Your task to perform on an android device: Add "razer blade" to the cart on bestbuy.com Image 0: 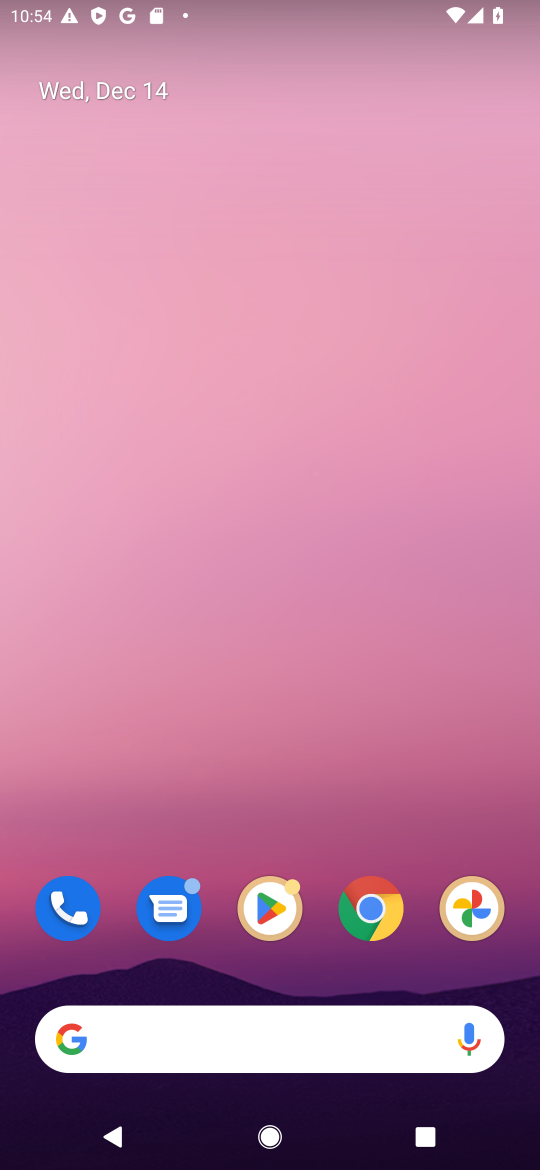
Step 0: click (368, 922)
Your task to perform on an android device: Add "razer blade" to the cart on bestbuy.com Image 1: 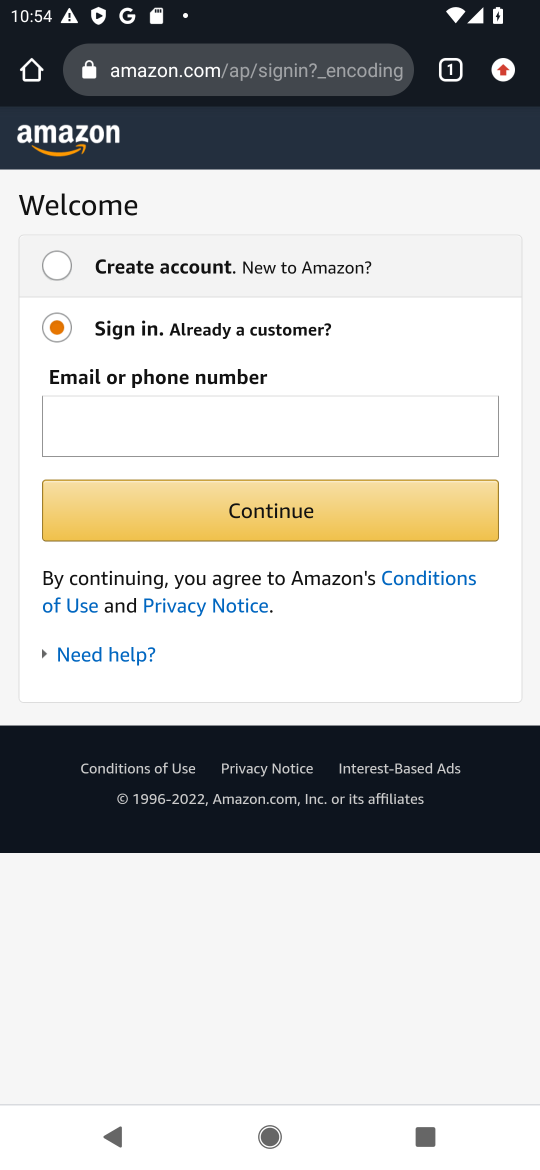
Step 1: click (239, 78)
Your task to perform on an android device: Add "razer blade" to the cart on bestbuy.com Image 2: 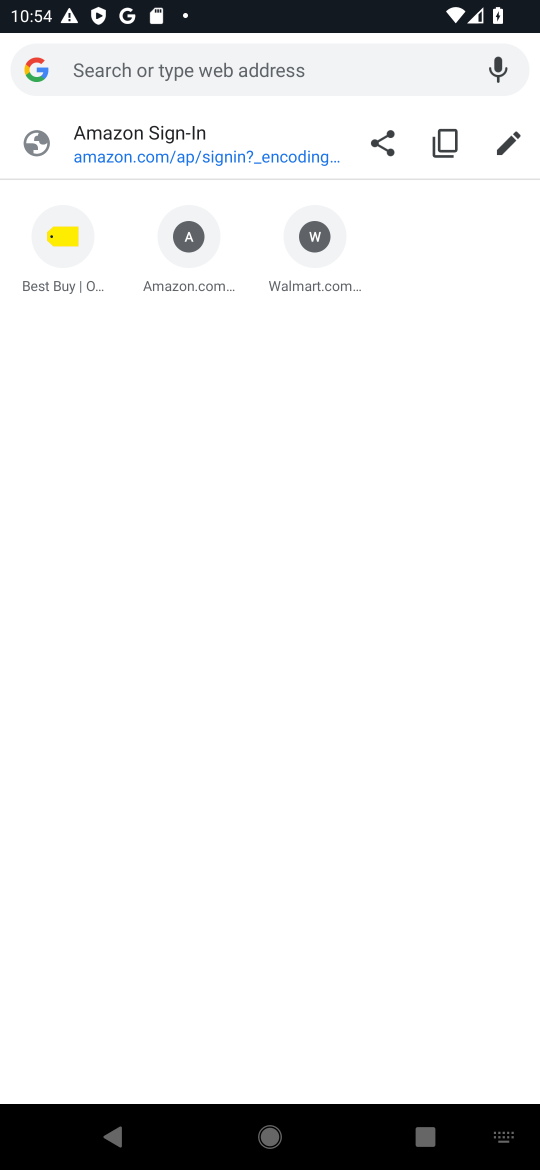
Step 2: type "bestbuy"
Your task to perform on an android device: Add "razer blade" to the cart on bestbuy.com Image 3: 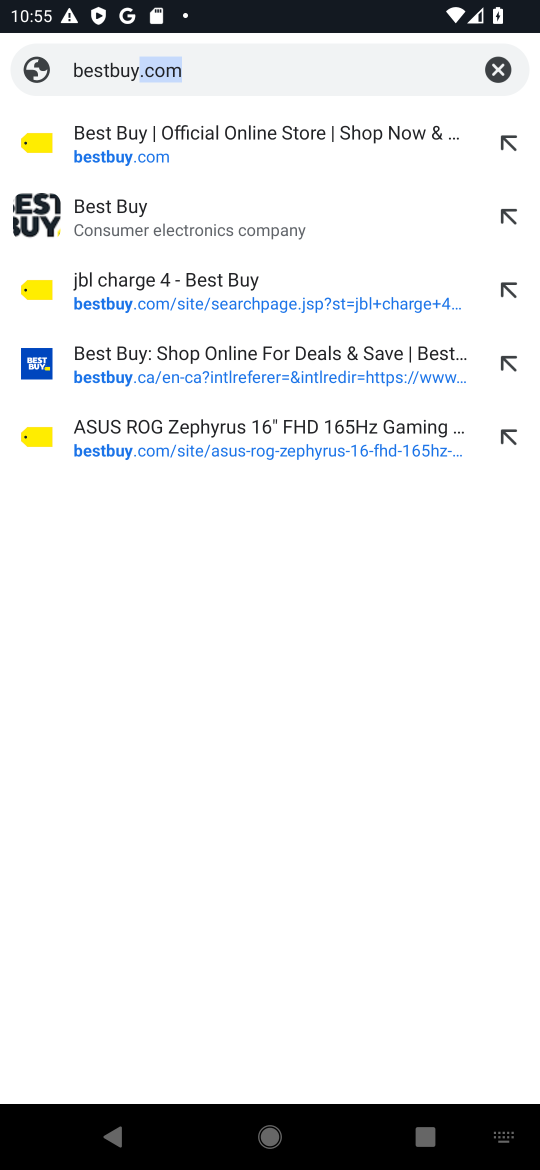
Step 3: click (274, 166)
Your task to perform on an android device: Add "razer blade" to the cart on bestbuy.com Image 4: 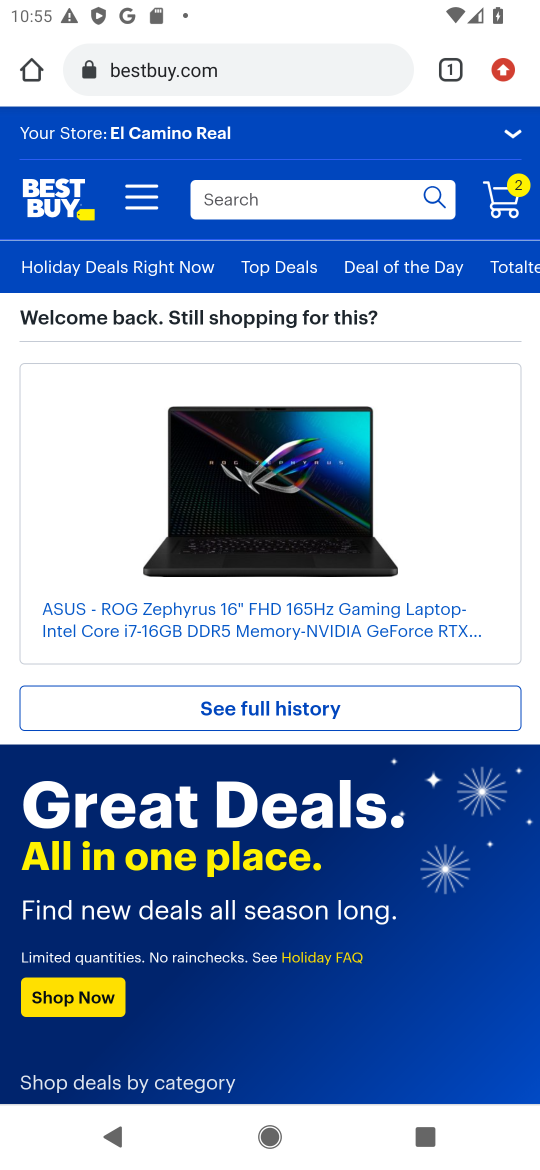
Step 4: click (256, 200)
Your task to perform on an android device: Add "razer blade" to the cart on bestbuy.com Image 5: 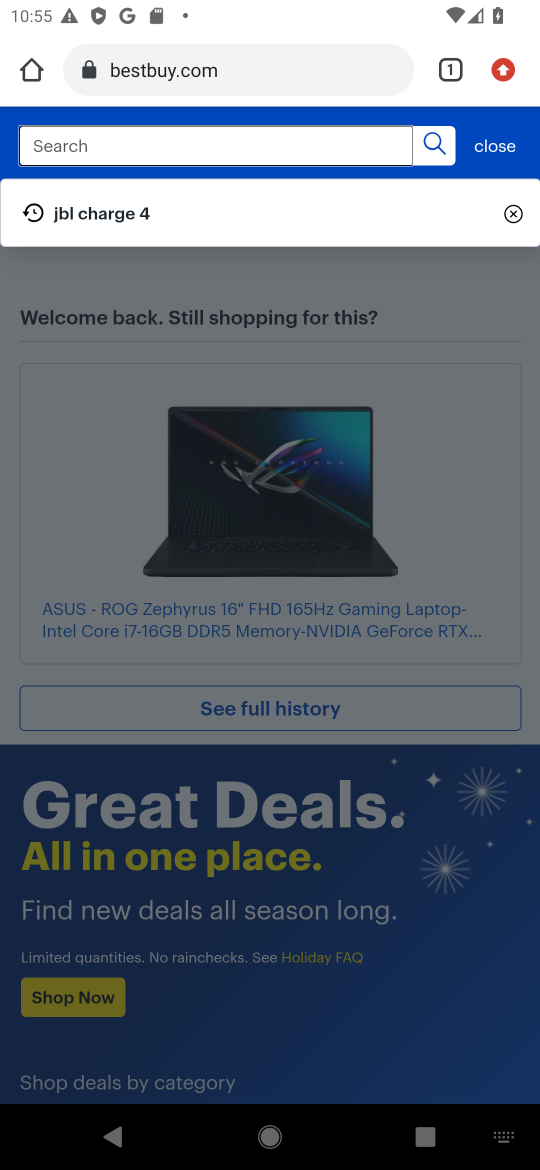
Step 5: type "razer blade"
Your task to perform on an android device: Add "razer blade" to the cart on bestbuy.com Image 6: 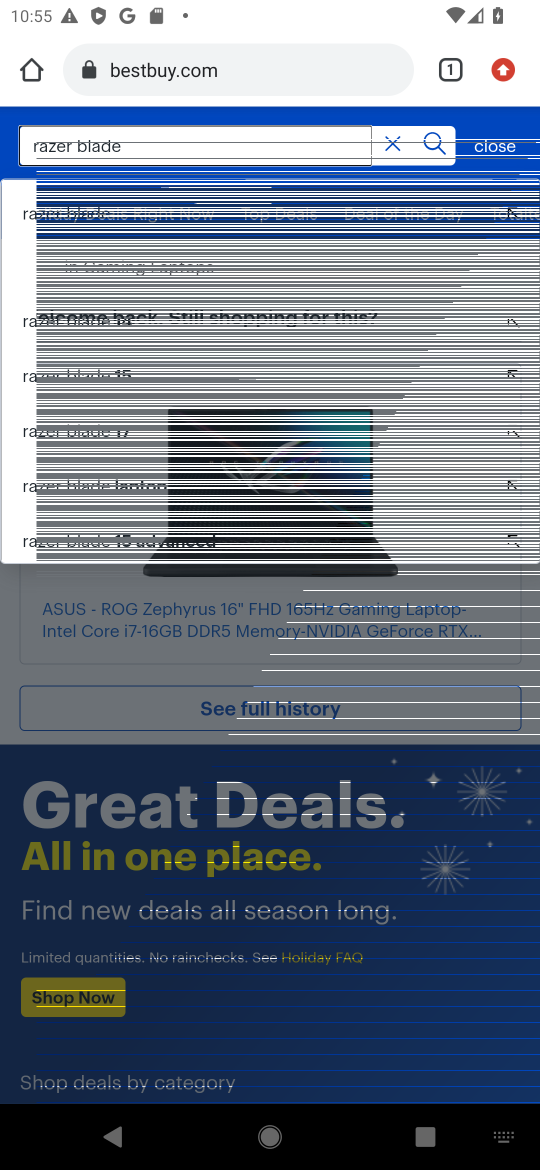
Step 6: click (20, 202)
Your task to perform on an android device: Add "razer blade" to the cart on bestbuy.com Image 7: 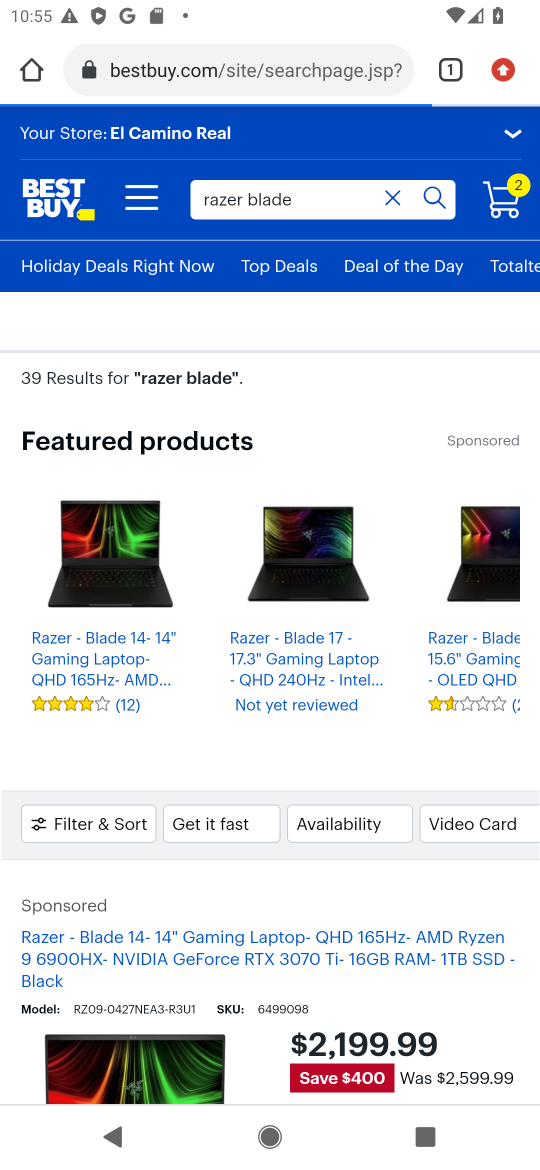
Step 7: click (145, 591)
Your task to perform on an android device: Add "razer blade" to the cart on bestbuy.com Image 8: 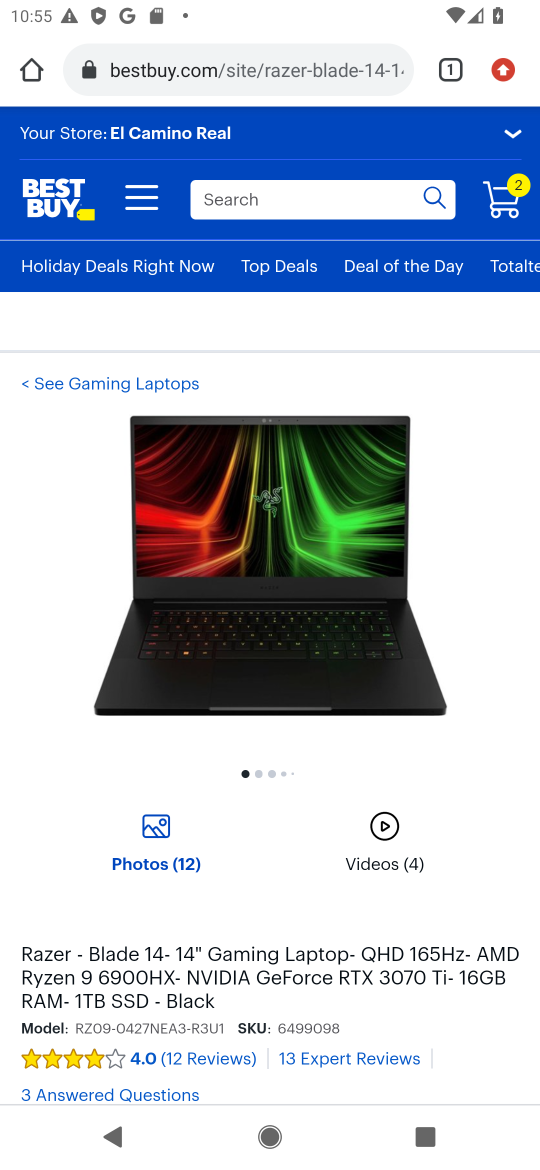
Step 8: click (237, 1044)
Your task to perform on an android device: Add "razer blade" to the cart on bestbuy.com Image 9: 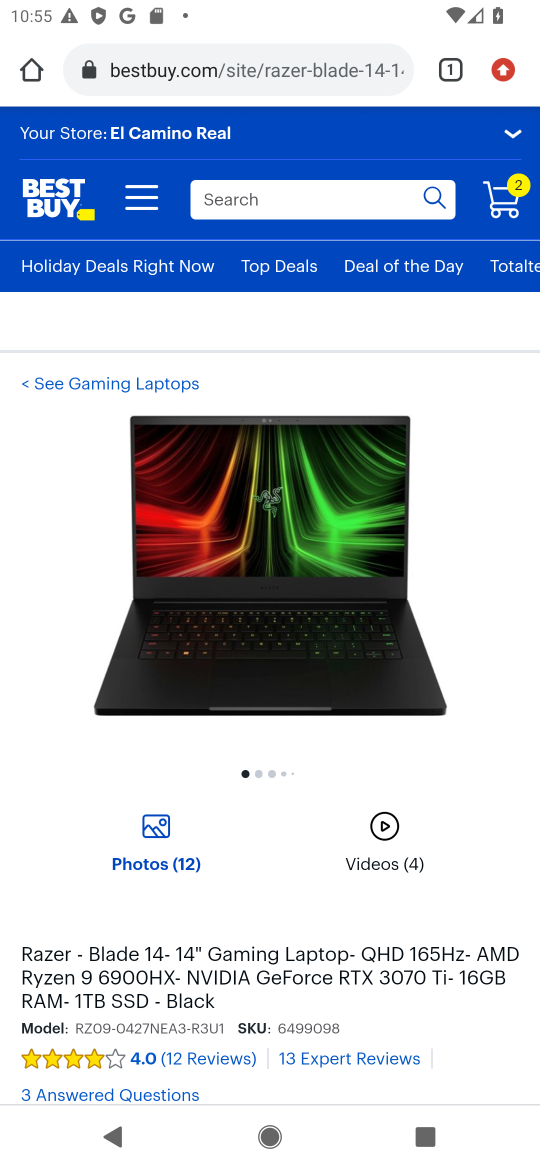
Step 9: task complete